Your task to perform on an android device: Open settings Image 0: 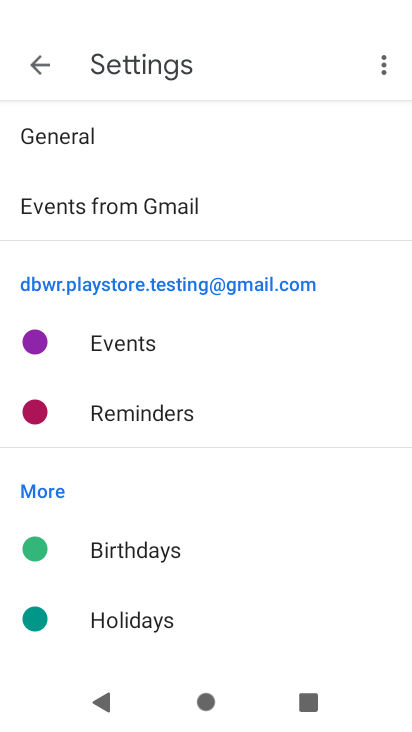
Step 0: press back button
Your task to perform on an android device: Open settings Image 1: 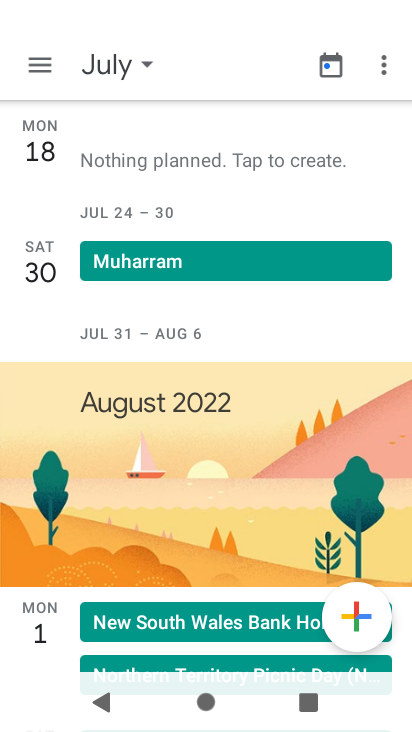
Step 1: press back button
Your task to perform on an android device: Open settings Image 2: 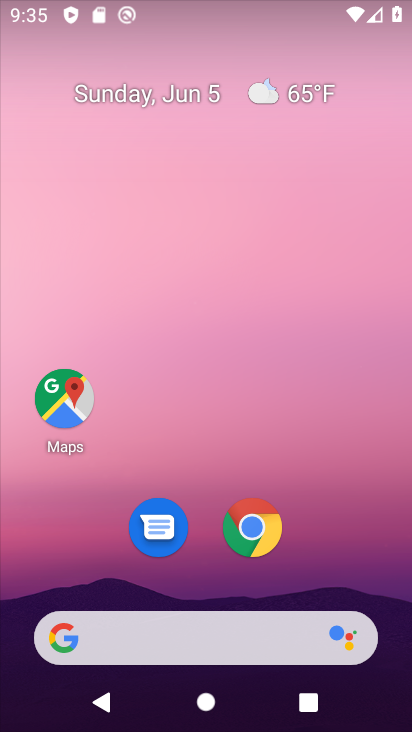
Step 2: drag from (229, 541) to (229, 105)
Your task to perform on an android device: Open settings Image 3: 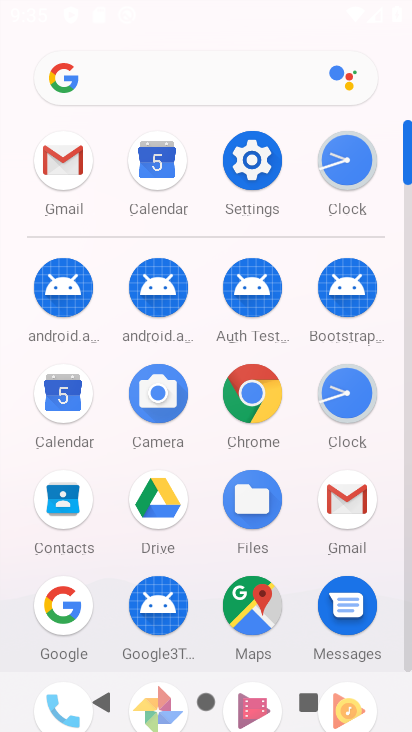
Step 3: click (262, 168)
Your task to perform on an android device: Open settings Image 4: 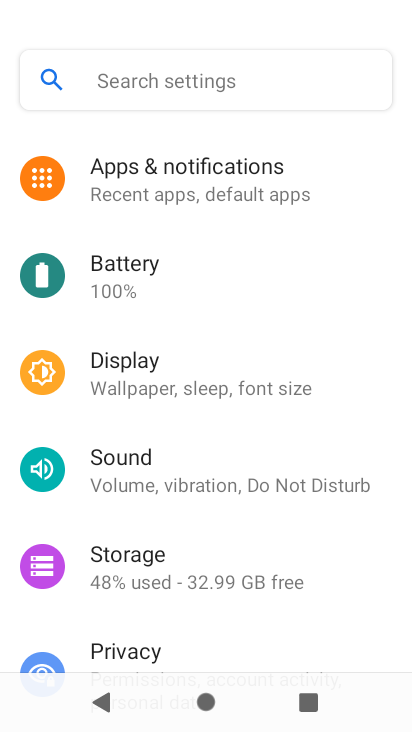
Step 4: task complete